Your task to perform on an android device: remove spam from my inbox in the gmail app Image 0: 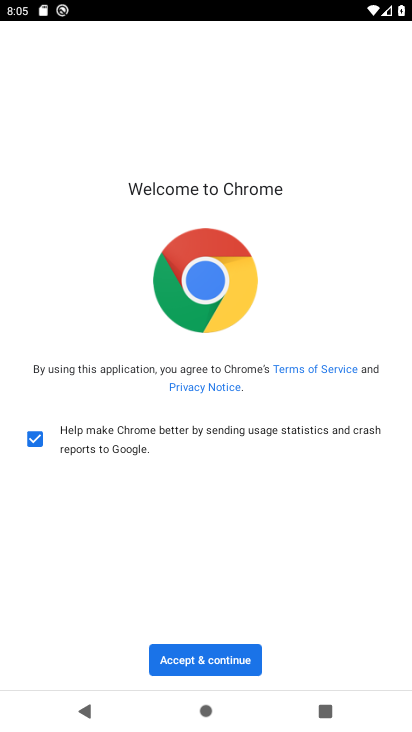
Step 0: press home button
Your task to perform on an android device: remove spam from my inbox in the gmail app Image 1: 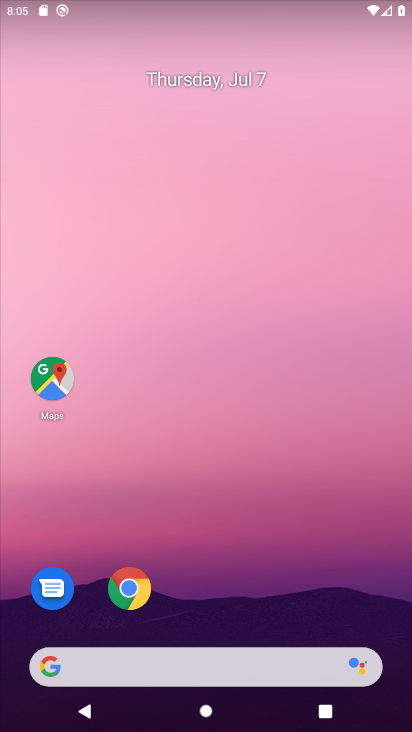
Step 1: drag from (246, 611) to (240, 47)
Your task to perform on an android device: remove spam from my inbox in the gmail app Image 2: 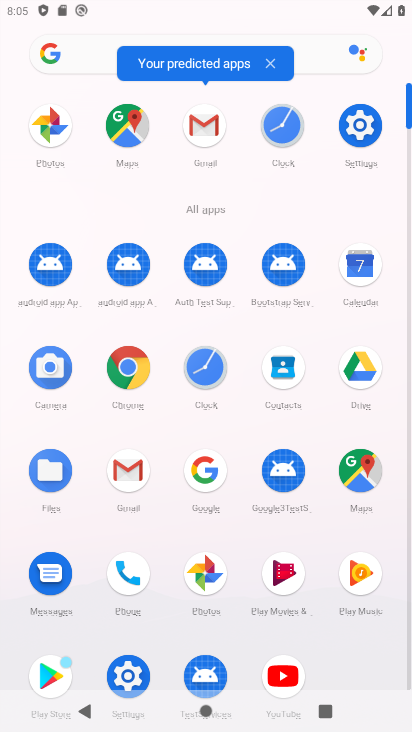
Step 2: click (208, 120)
Your task to perform on an android device: remove spam from my inbox in the gmail app Image 3: 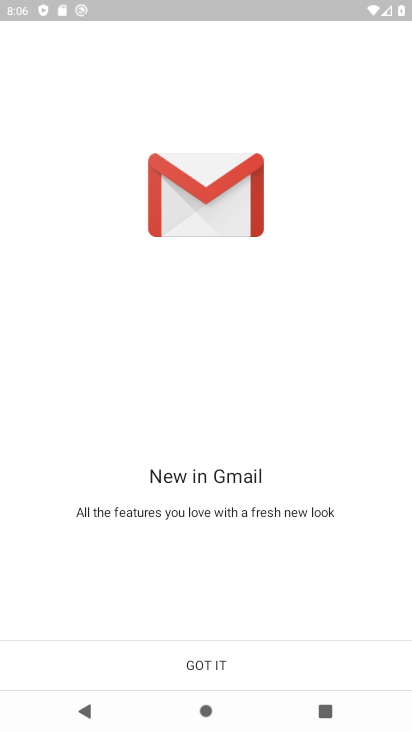
Step 3: click (213, 667)
Your task to perform on an android device: remove spam from my inbox in the gmail app Image 4: 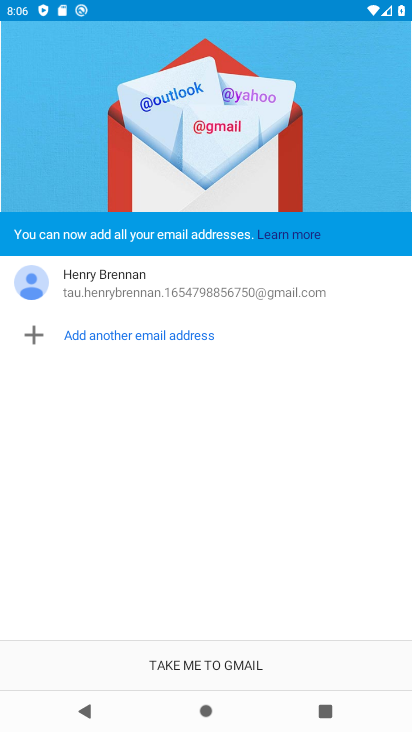
Step 4: click (213, 667)
Your task to perform on an android device: remove spam from my inbox in the gmail app Image 5: 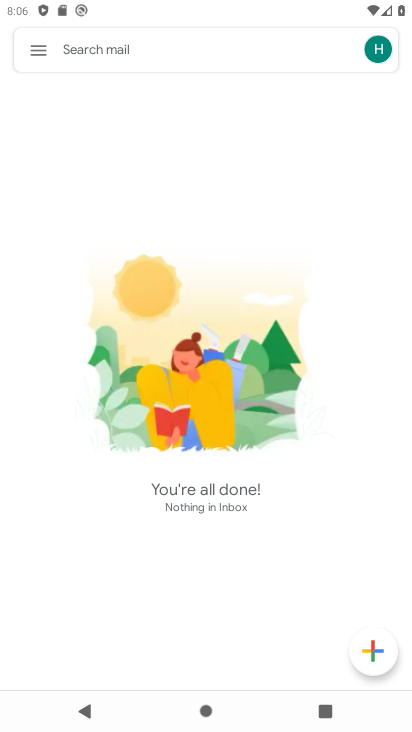
Step 5: click (38, 46)
Your task to perform on an android device: remove spam from my inbox in the gmail app Image 6: 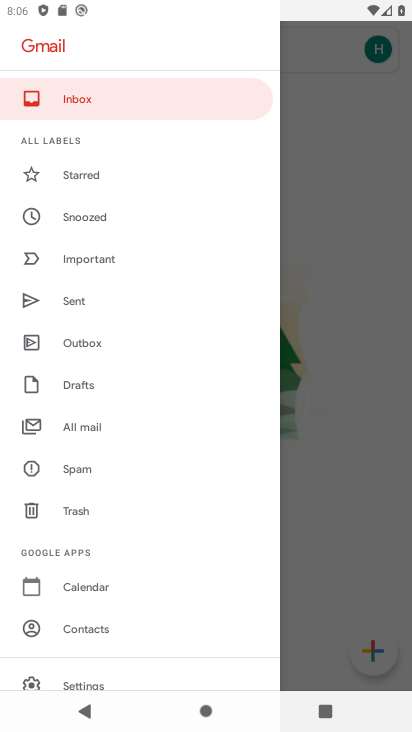
Step 6: click (80, 471)
Your task to perform on an android device: remove spam from my inbox in the gmail app Image 7: 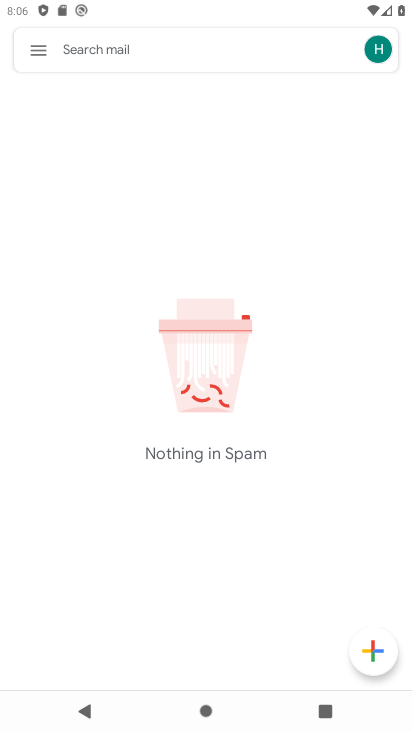
Step 7: task complete